Your task to perform on an android device: Open location settings Image 0: 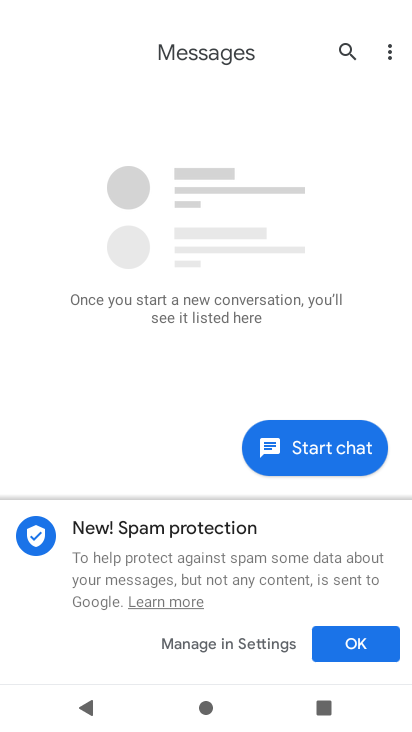
Step 0: press home button
Your task to perform on an android device: Open location settings Image 1: 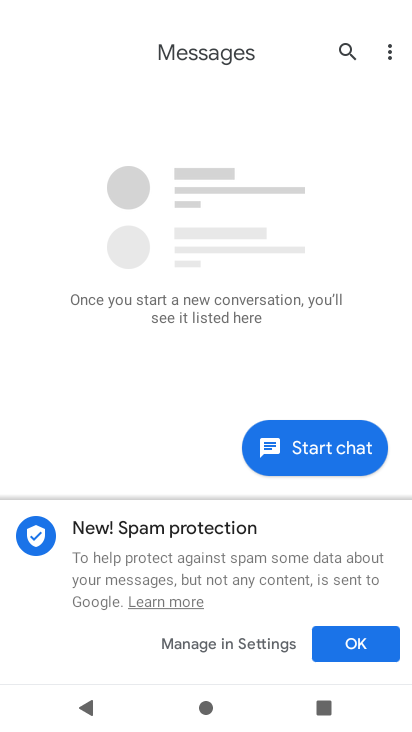
Step 1: drag from (223, 578) to (205, 55)
Your task to perform on an android device: Open location settings Image 2: 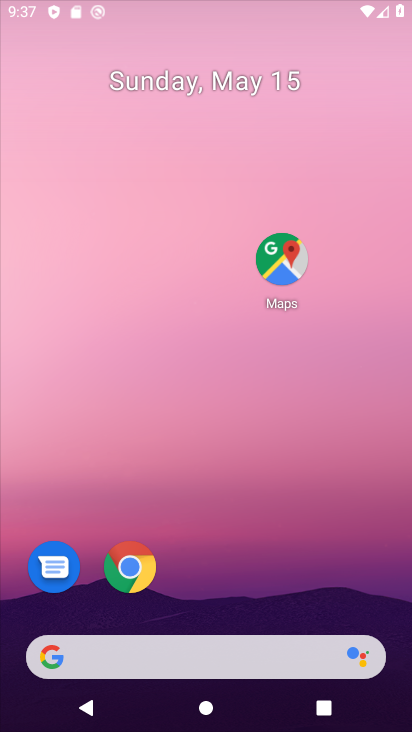
Step 2: drag from (201, 535) to (211, 16)
Your task to perform on an android device: Open location settings Image 3: 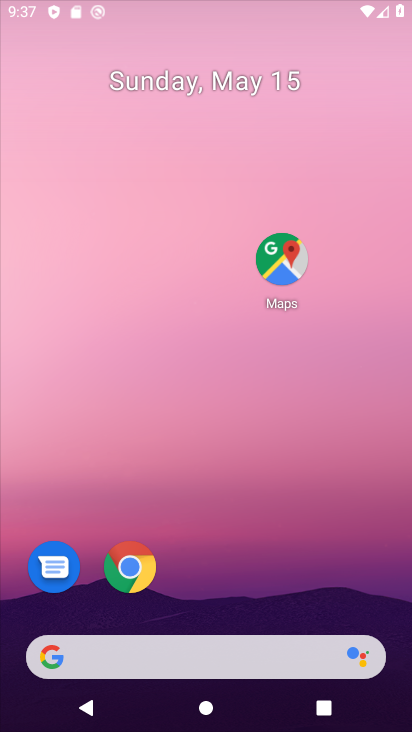
Step 3: click (202, 122)
Your task to perform on an android device: Open location settings Image 4: 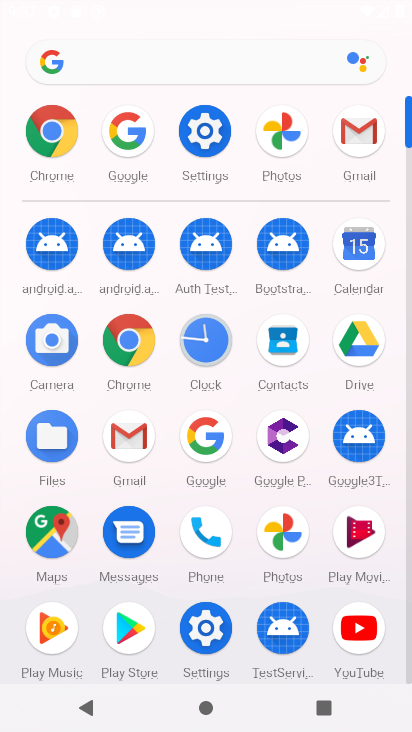
Step 4: click (205, 129)
Your task to perform on an android device: Open location settings Image 5: 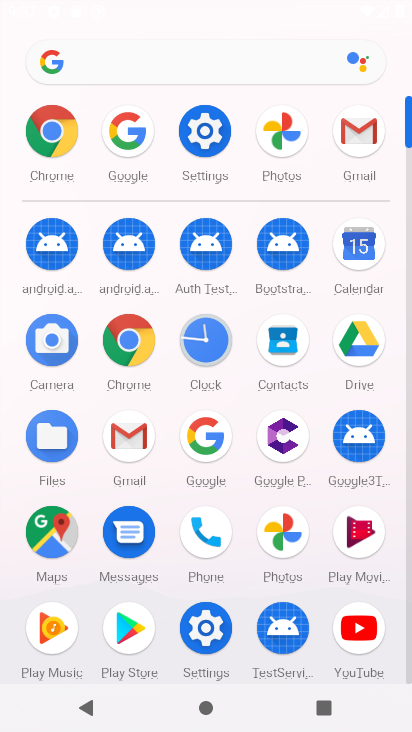
Step 5: click (152, 436)
Your task to perform on an android device: Open location settings Image 6: 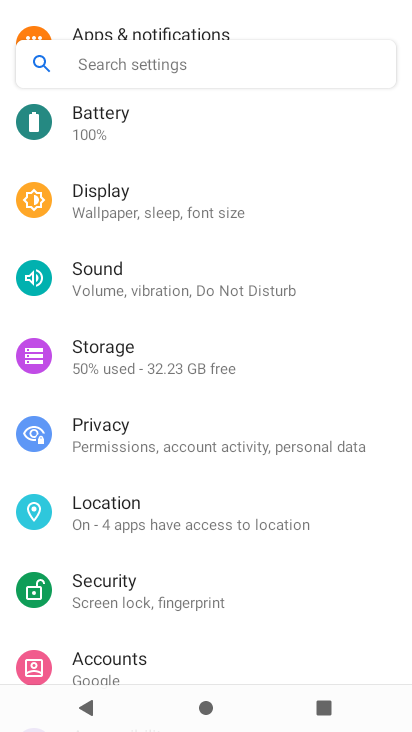
Step 6: click (158, 537)
Your task to perform on an android device: Open location settings Image 7: 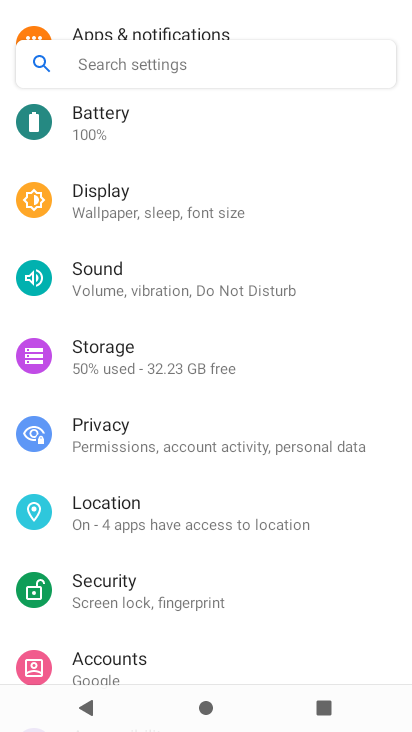
Step 7: task complete
Your task to perform on an android device: Open location settings Image 8: 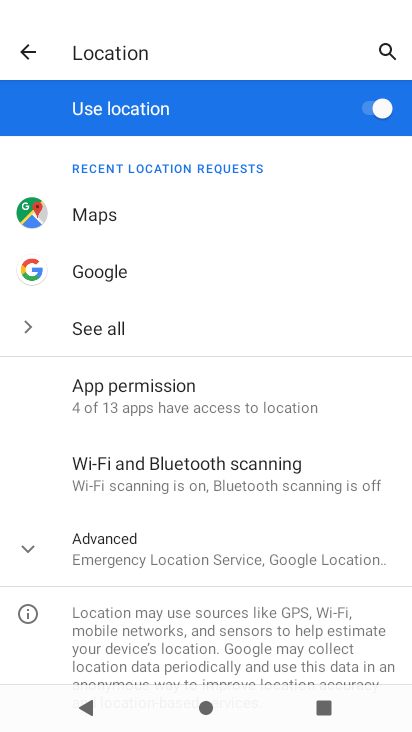
Step 8: task complete